Your task to perform on an android device: Open CNN.com Image 0: 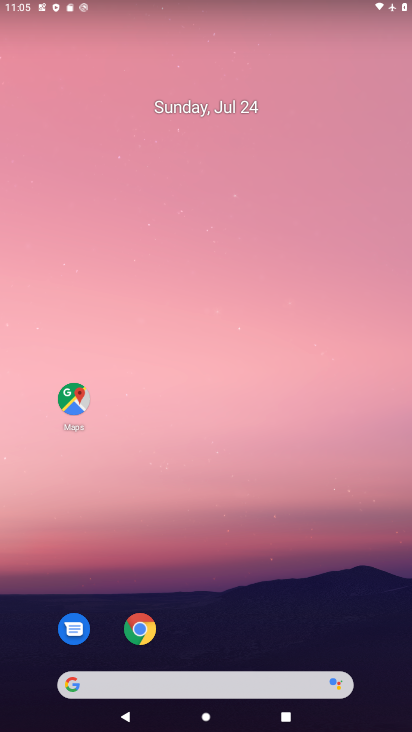
Step 0: click (133, 637)
Your task to perform on an android device: Open CNN.com Image 1: 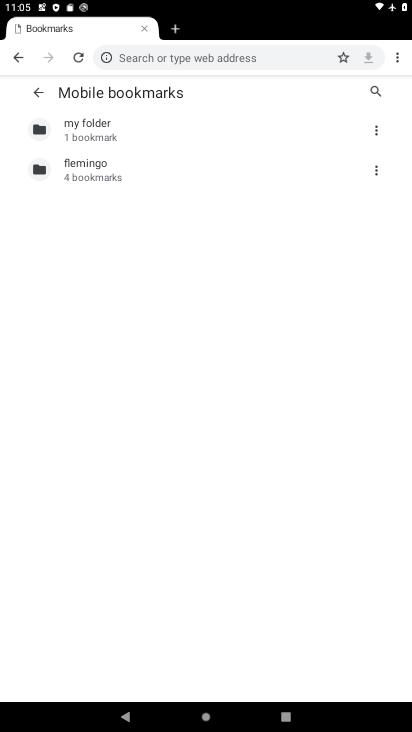
Step 1: click (169, 27)
Your task to perform on an android device: Open CNN.com Image 2: 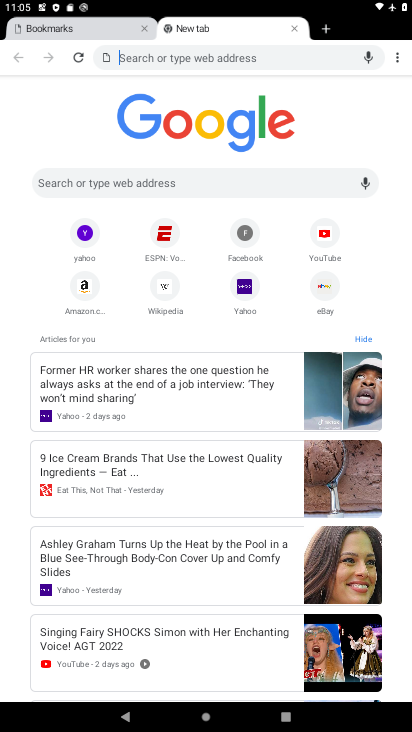
Step 2: type "cnn.com"
Your task to perform on an android device: Open CNN.com Image 3: 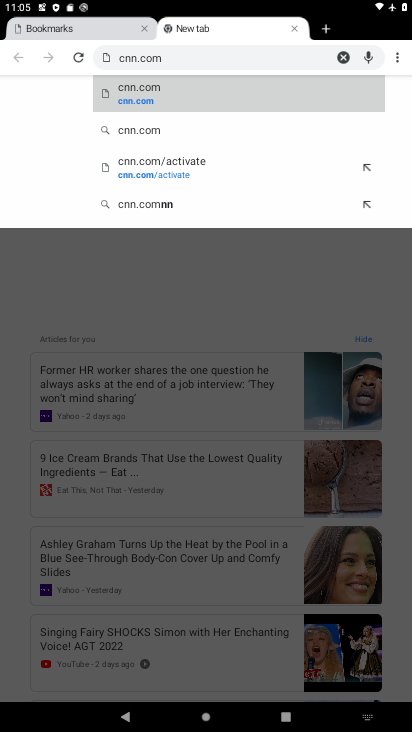
Step 3: click (236, 104)
Your task to perform on an android device: Open CNN.com Image 4: 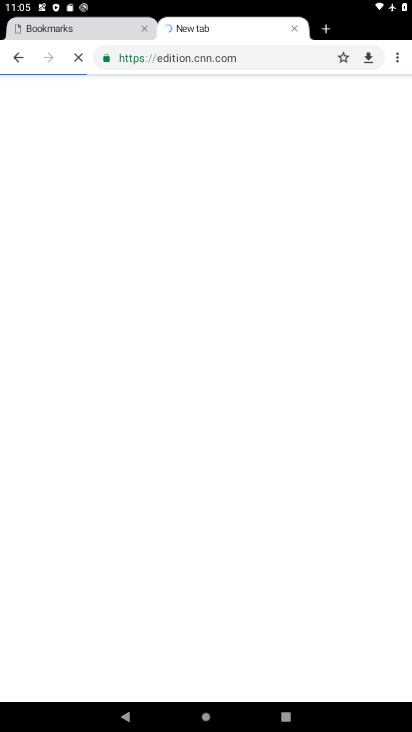
Step 4: task complete